Your task to perform on an android device: Open Google Maps Image 0: 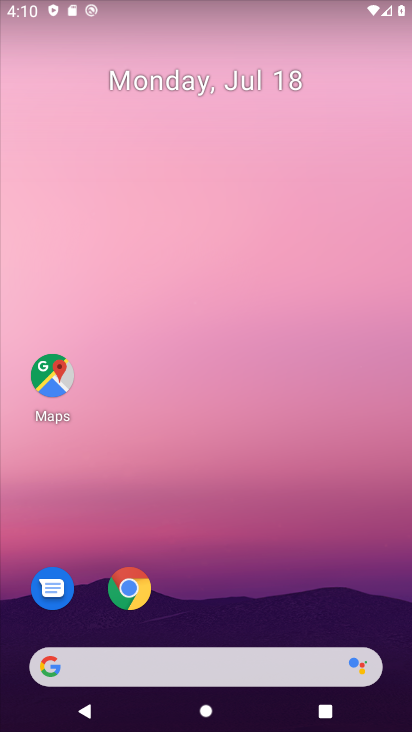
Step 0: drag from (195, 587) to (366, 11)
Your task to perform on an android device: Open Google Maps Image 1: 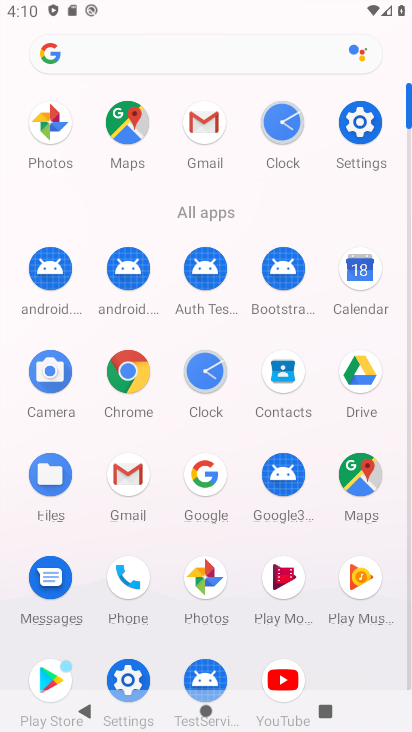
Step 1: click (365, 489)
Your task to perform on an android device: Open Google Maps Image 2: 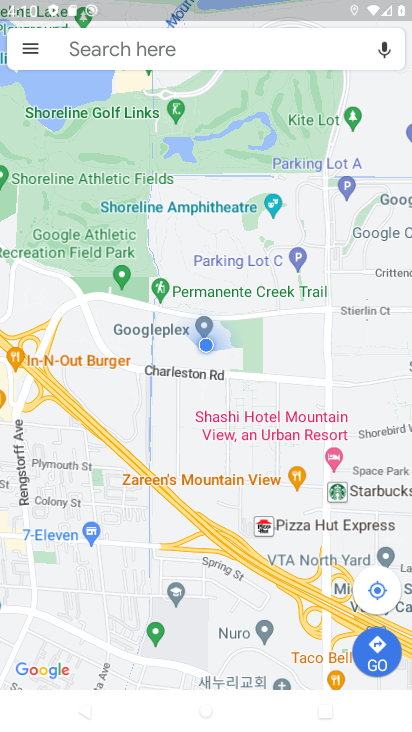
Step 2: task complete